Your task to perform on an android device: toggle show notifications on the lock screen Image 0: 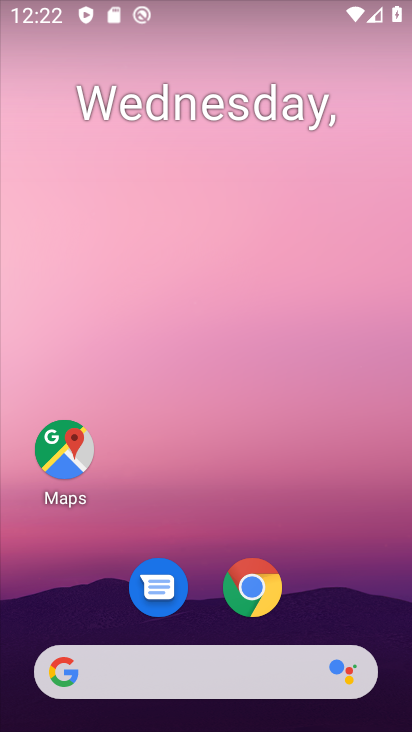
Step 0: drag from (209, 609) to (230, 172)
Your task to perform on an android device: toggle show notifications on the lock screen Image 1: 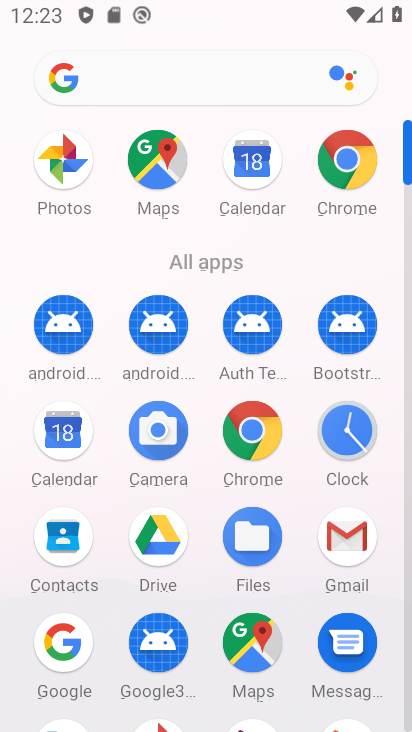
Step 1: drag from (255, 377) to (238, 548)
Your task to perform on an android device: toggle show notifications on the lock screen Image 2: 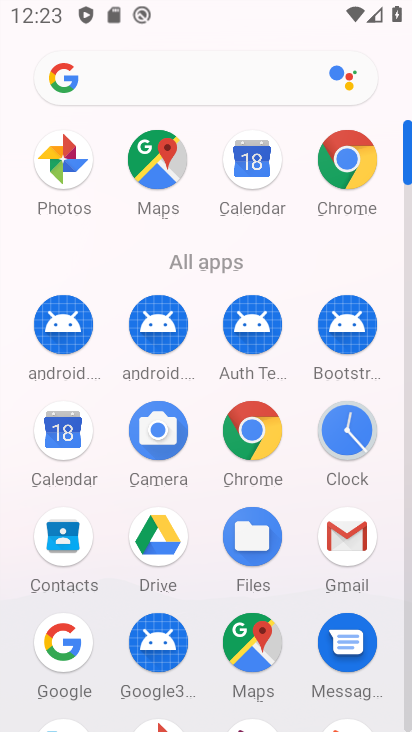
Step 2: drag from (198, 555) to (199, 353)
Your task to perform on an android device: toggle show notifications on the lock screen Image 3: 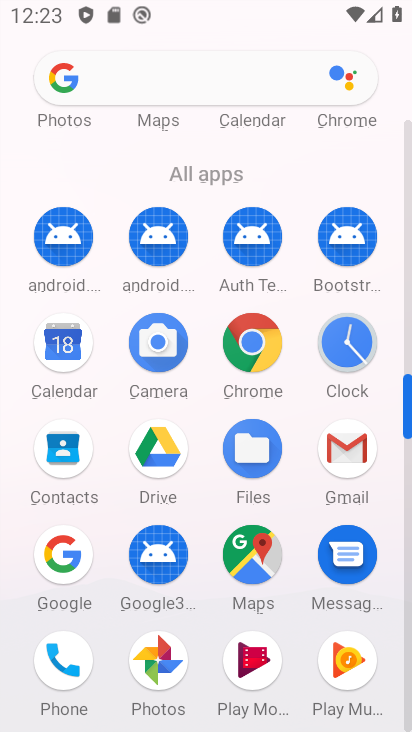
Step 3: drag from (201, 567) to (213, 368)
Your task to perform on an android device: toggle show notifications on the lock screen Image 4: 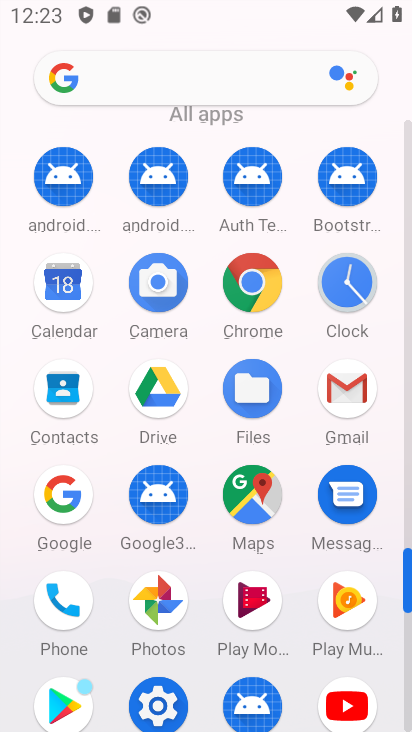
Step 4: click (160, 708)
Your task to perform on an android device: toggle show notifications on the lock screen Image 5: 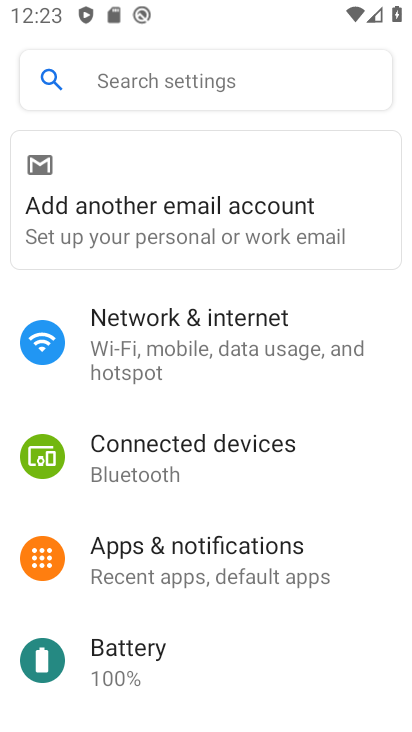
Step 5: drag from (164, 647) to (217, 320)
Your task to perform on an android device: toggle show notifications on the lock screen Image 6: 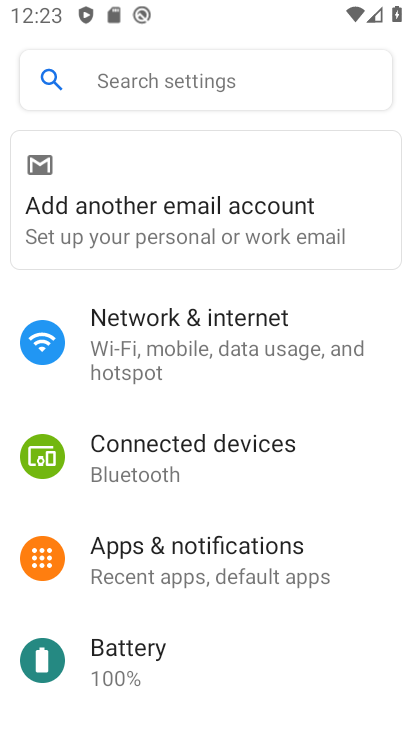
Step 6: drag from (227, 616) to (234, 279)
Your task to perform on an android device: toggle show notifications on the lock screen Image 7: 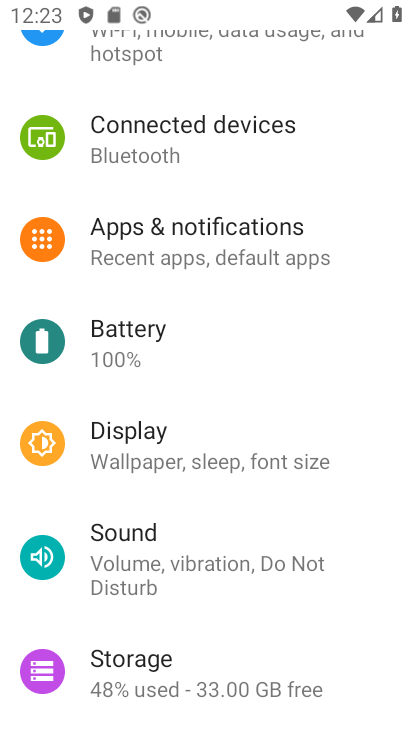
Step 7: click (182, 255)
Your task to perform on an android device: toggle show notifications on the lock screen Image 8: 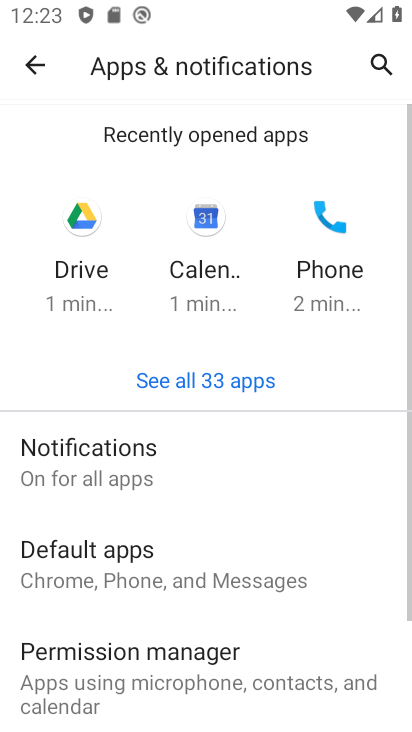
Step 8: drag from (213, 673) to (234, 237)
Your task to perform on an android device: toggle show notifications on the lock screen Image 9: 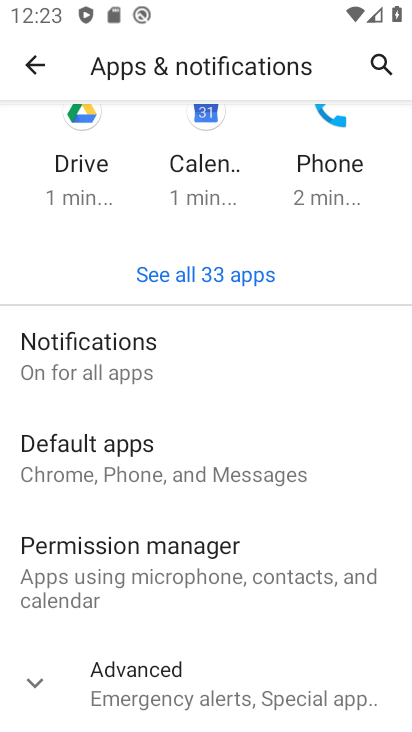
Step 9: drag from (173, 643) to (213, 339)
Your task to perform on an android device: toggle show notifications on the lock screen Image 10: 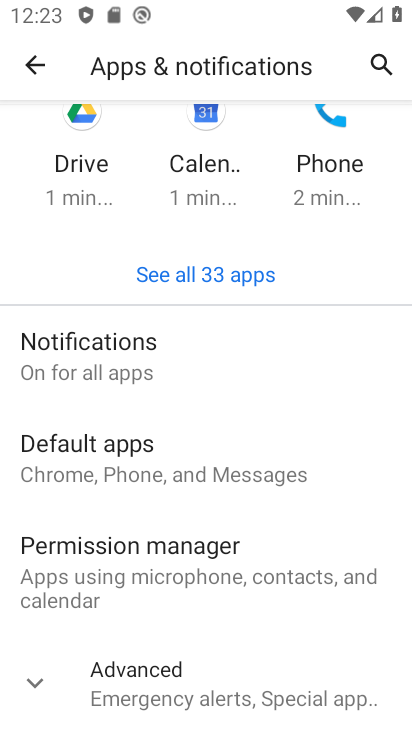
Step 10: drag from (186, 632) to (203, 327)
Your task to perform on an android device: toggle show notifications on the lock screen Image 11: 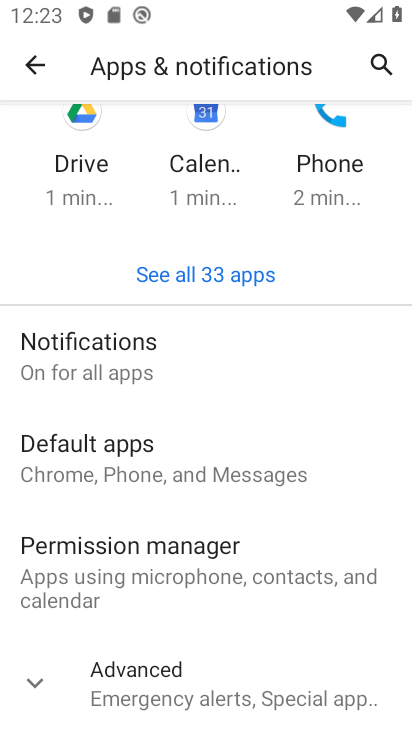
Step 11: click (145, 714)
Your task to perform on an android device: toggle show notifications on the lock screen Image 12: 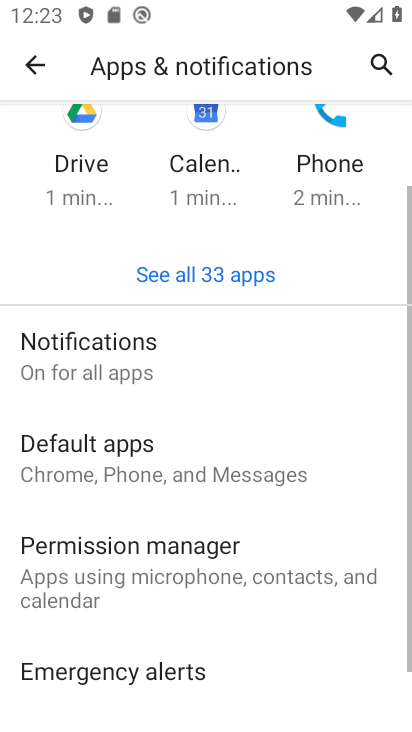
Step 12: drag from (167, 677) to (172, 384)
Your task to perform on an android device: toggle show notifications on the lock screen Image 13: 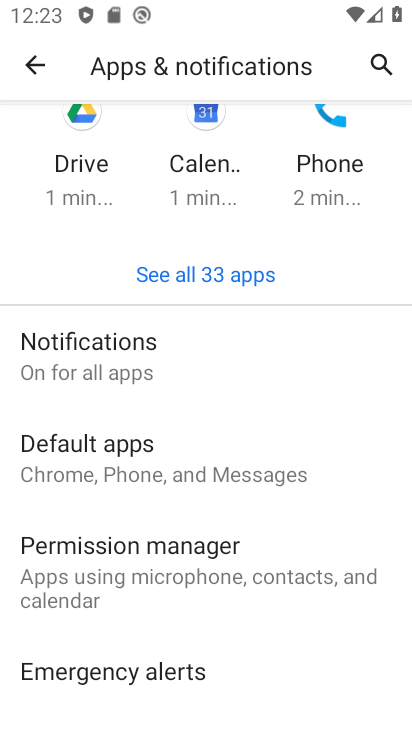
Step 13: click (120, 366)
Your task to perform on an android device: toggle show notifications on the lock screen Image 14: 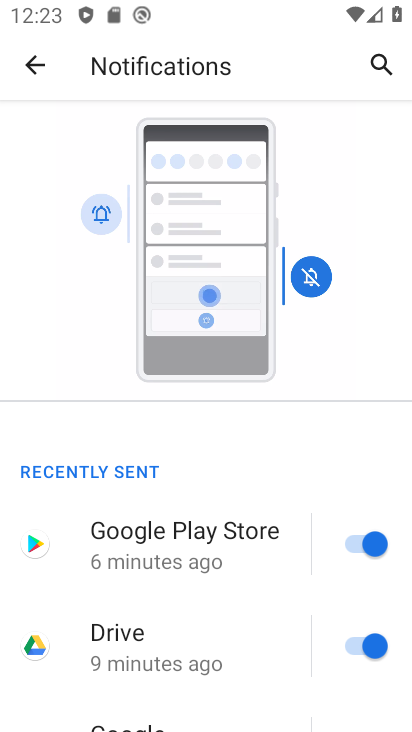
Step 14: drag from (196, 667) to (201, 368)
Your task to perform on an android device: toggle show notifications on the lock screen Image 15: 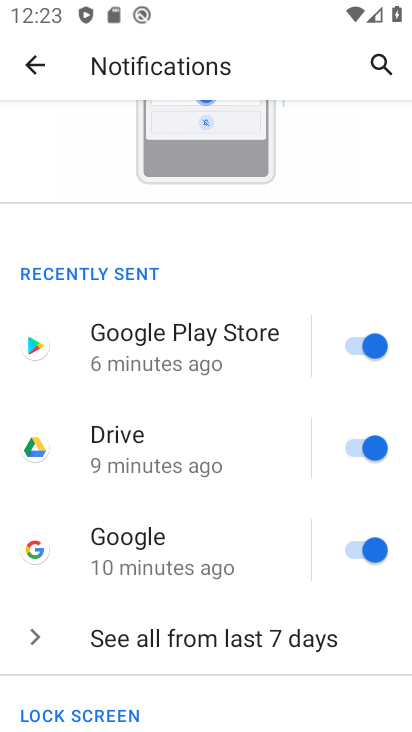
Step 15: drag from (176, 670) to (216, 401)
Your task to perform on an android device: toggle show notifications on the lock screen Image 16: 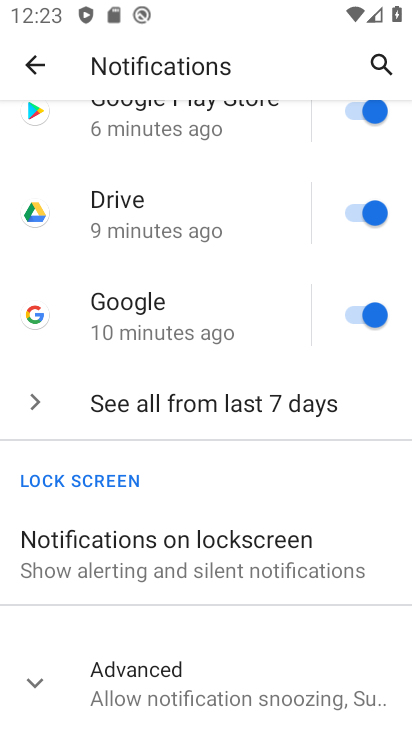
Step 16: click (149, 571)
Your task to perform on an android device: toggle show notifications on the lock screen Image 17: 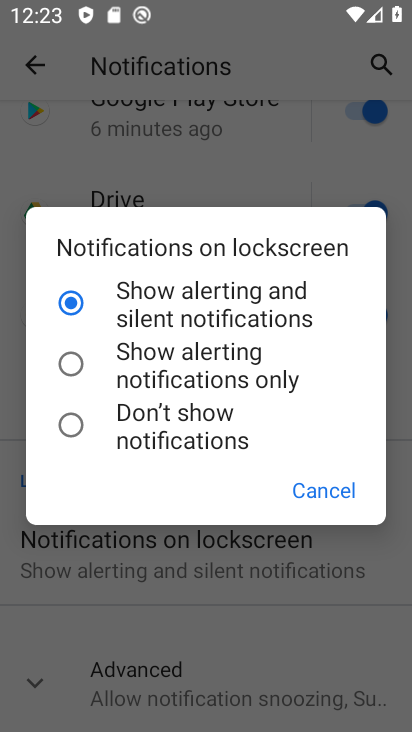
Step 17: click (76, 429)
Your task to perform on an android device: toggle show notifications on the lock screen Image 18: 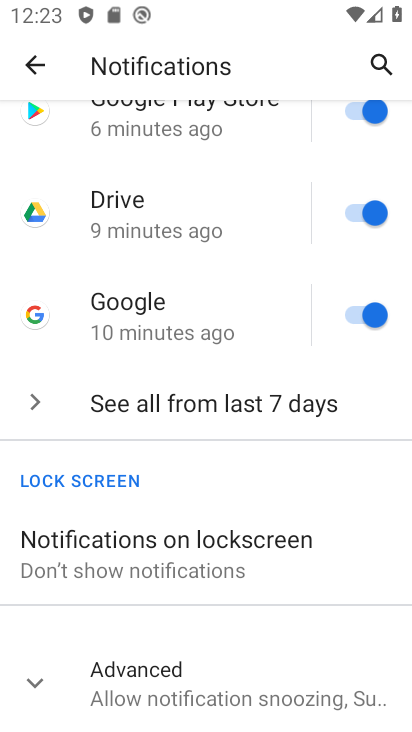
Step 18: task complete